Your task to perform on an android device: What's the weather going to be tomorrow? Image 0: 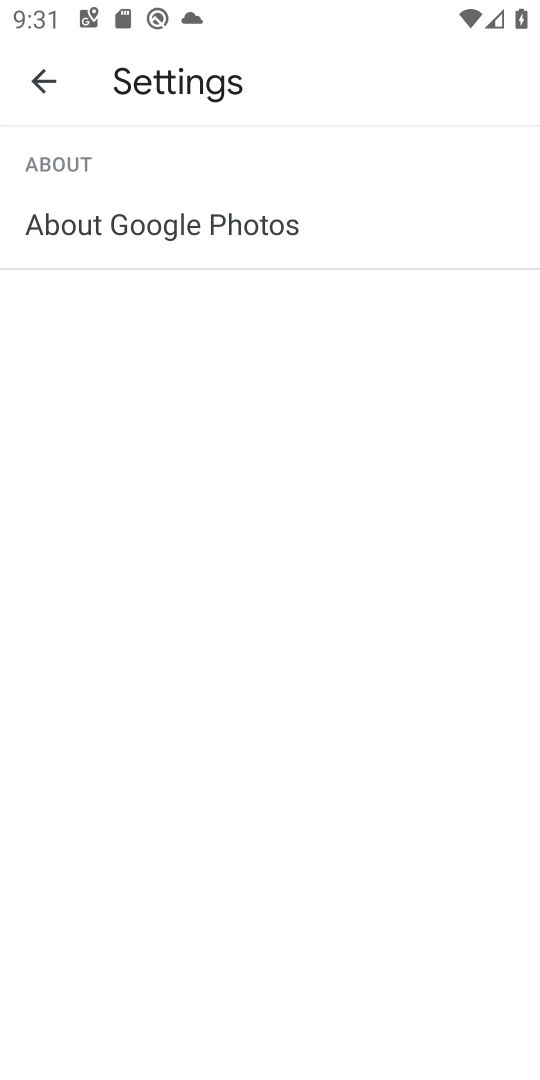
Step 0: press home button
Your task to perform on an android device: What's the weather going to be tomorrow? Image 1: 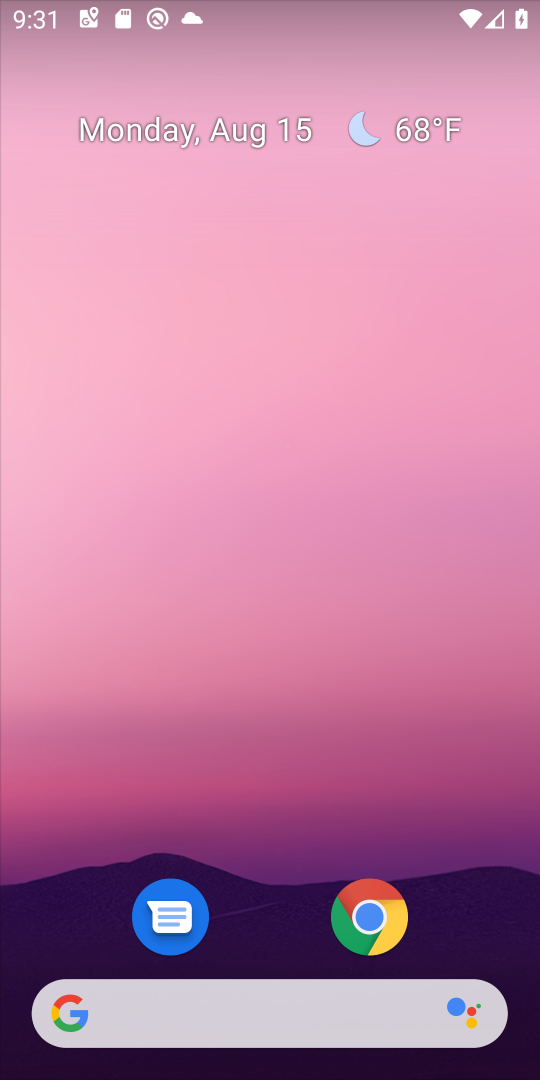
Step 1: click (400, 127)
Your task to perform on an android device: What's the weather going to be tomorrow? Image 2: 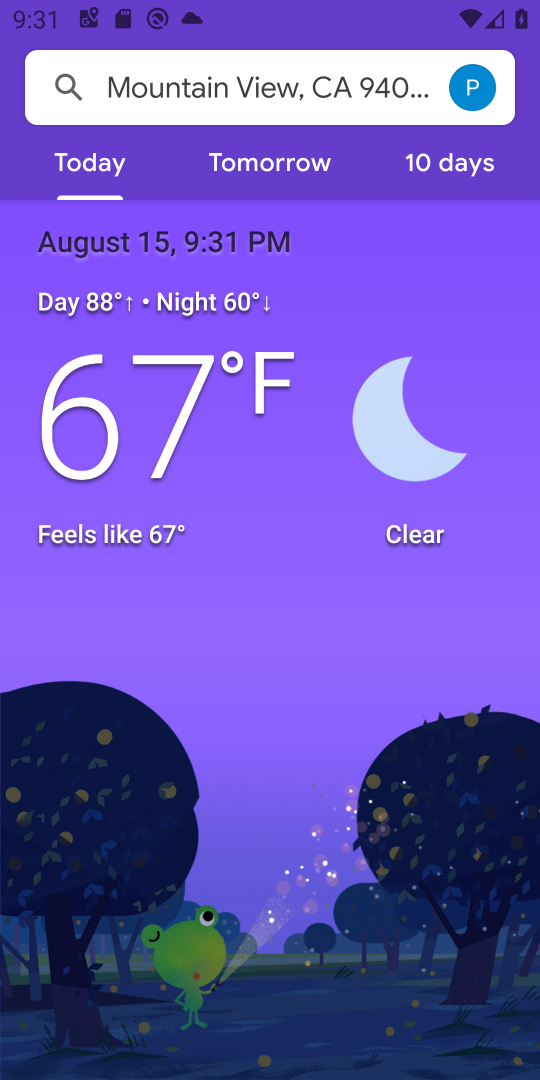
Step 2: click (294, 162)
Your task to perform on an android device: What's the weather going to be tomorrow? Image 3: 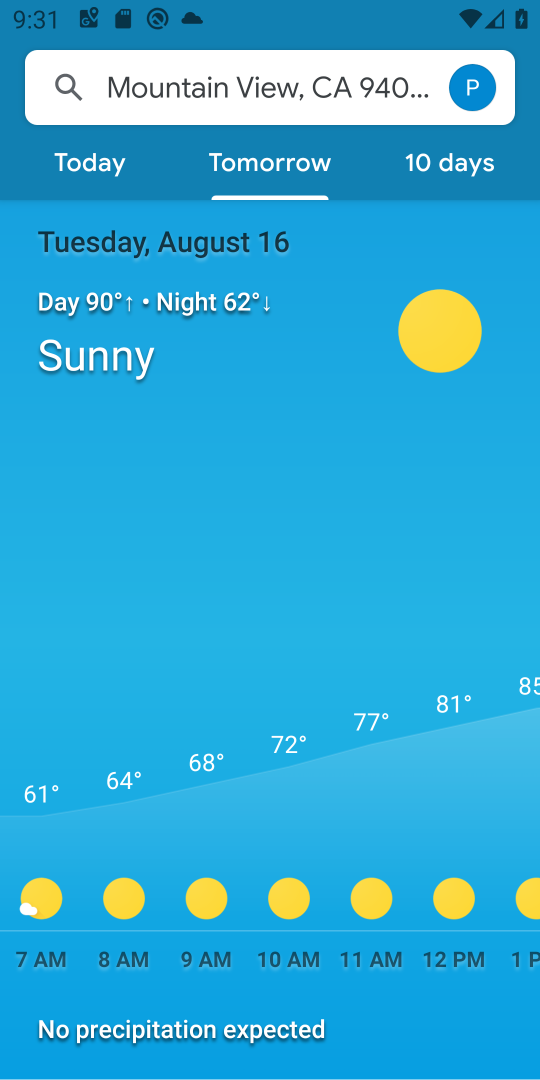
Step 3: task complete